Your task to perform on an android device: manage bookmarks in the chrome app Image 0: 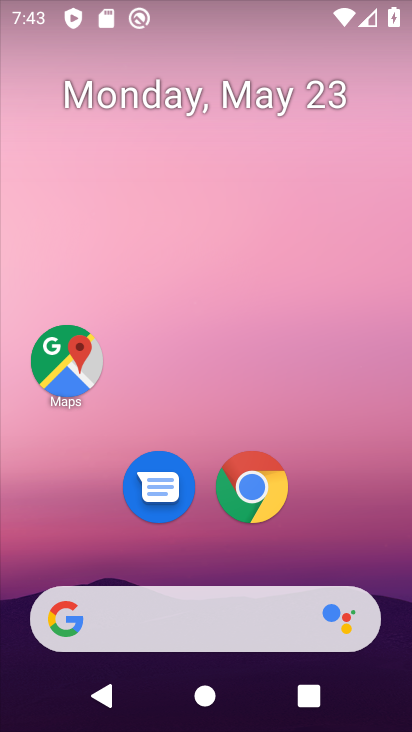
Step 0: drag from (332, 525) to (242, 26)
Your task to perform on an android device: manage bookmarks in the chrome app Image 1: 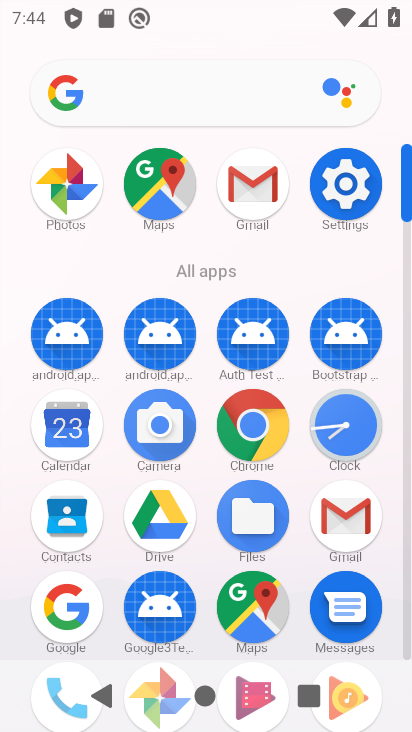
Step 1: drag from (16, 501) to (3, 212)
Your task to perform on an android device: manage bookmarks in the chrome app Image 2: 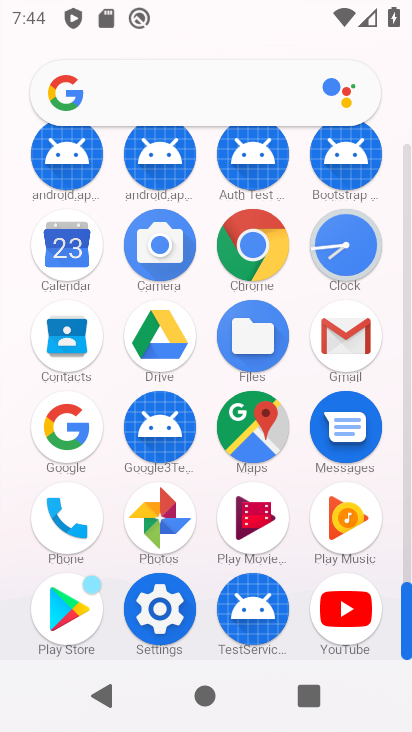
Step 2: click (238, 241)
Your task to perform on an android device: manage bookmarks in the chrome app Image 3: 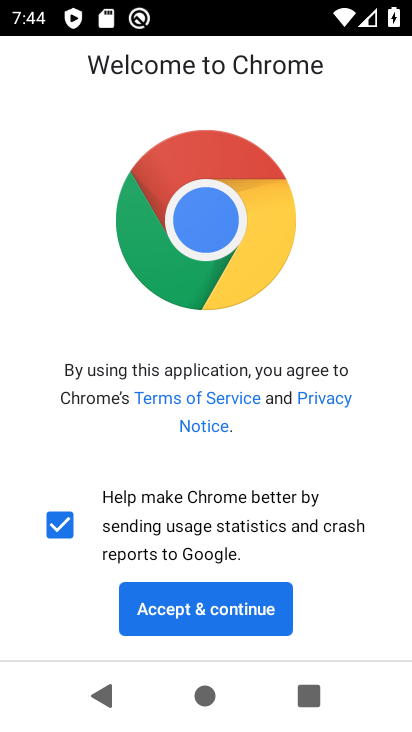
Step 3: click (152, 599)
Your task to perform on an android device: manage bookmarks in the chrome app Image 4: 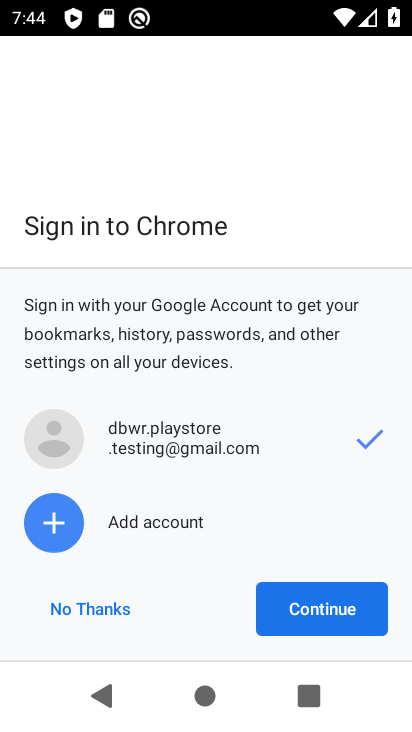
Step 4: click (271, 601)
Your task to perform on an android device: manage bookmarks in the chrome app Image 5: 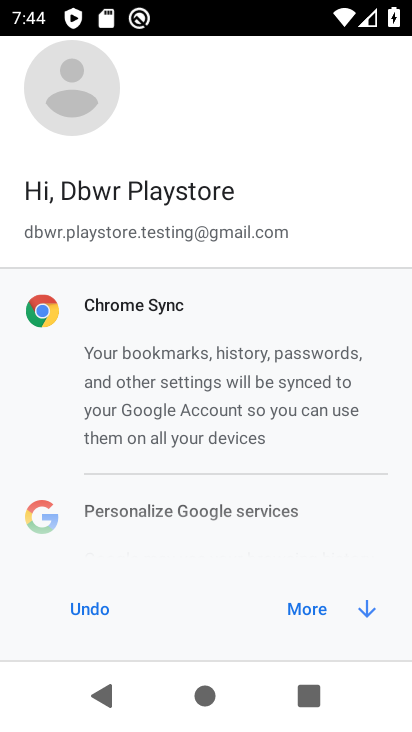
Step 5: click (303, 598)
Your task to perform on an android device: manage bookmarks in the chrome app Image 6: 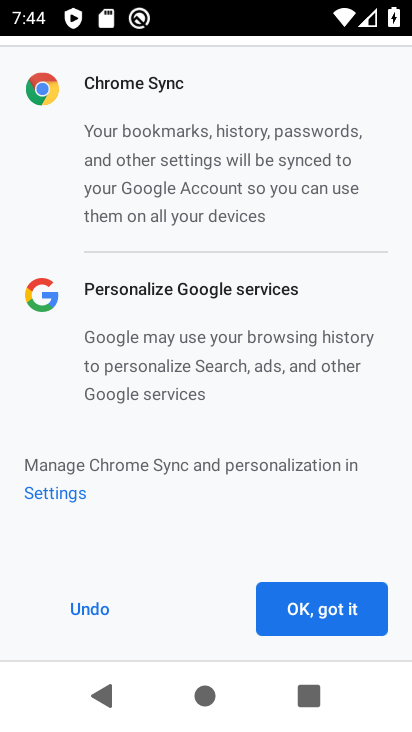
Step 6: click (303, 598)
Your task to perform on an android device: manage bookmarks in the chrome app Image 7: 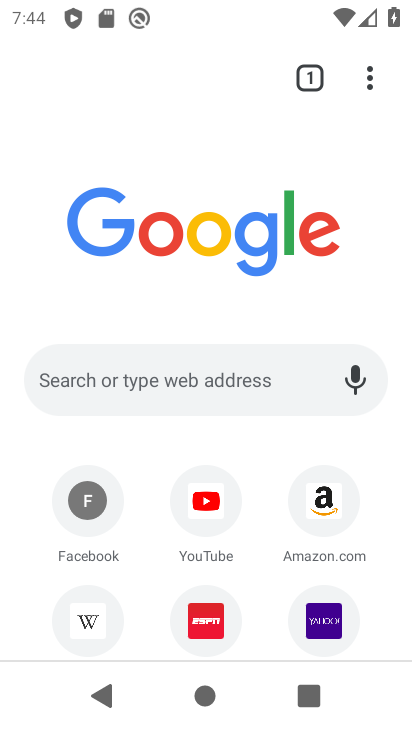
Step 7: drag from (370, 68) to (188, 285)
Your task to perform on an android device: manage bookmarks in the chrome app Image 8: 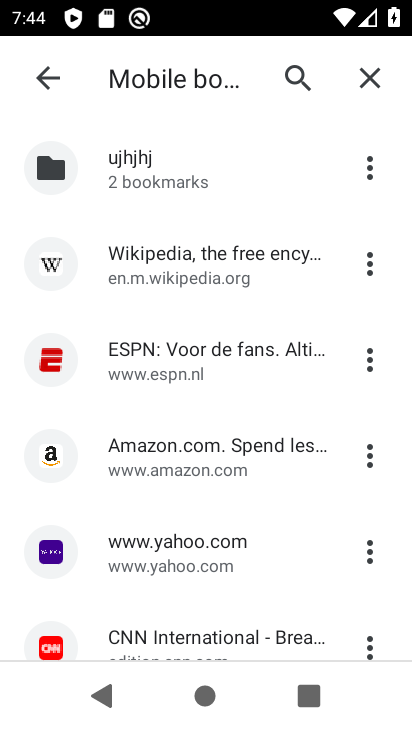
Step 8: click (366, 162)
Your task to perform on an android device: manage bookmarks in the chrome app Image 9: 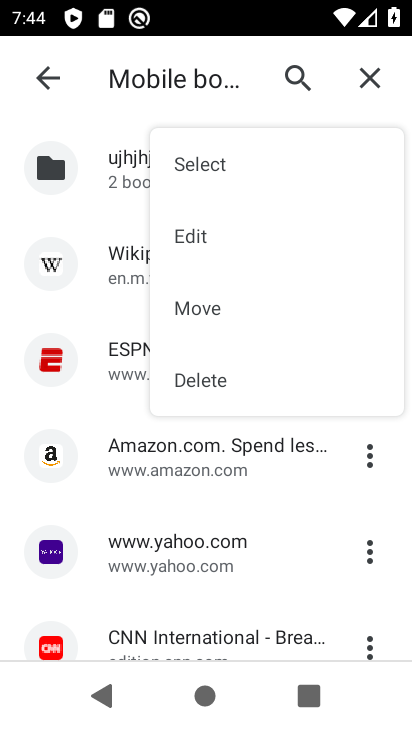
Step 9: drag from (367, 169) to (222, 371)
Your task to perform on an android device: manage bookmarks in the chrome app Image 10: 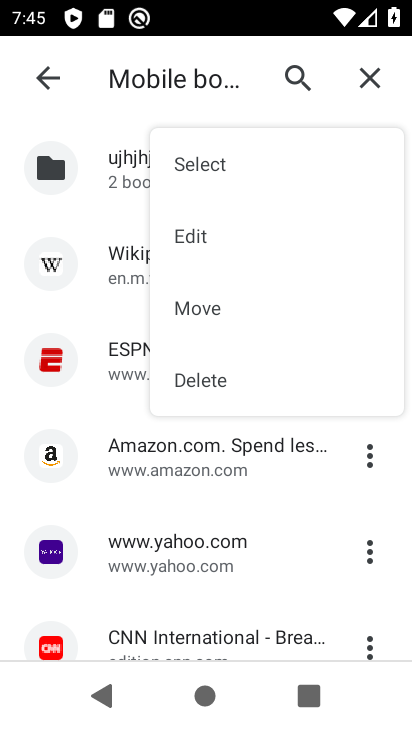
Step 10: click (209, 381)
Your task to perform on an android device: manage bookmarks in the chrome app Image 11: 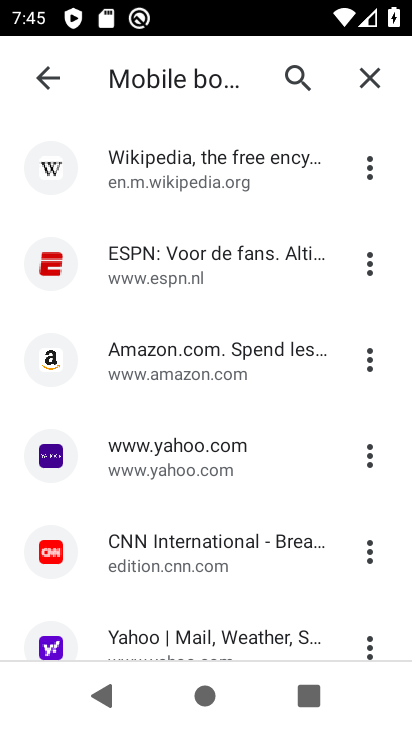
Step 11: task complete